Your task to perform on an android device: Add "logitech g pro" to the cart on ebay.com Image 0: 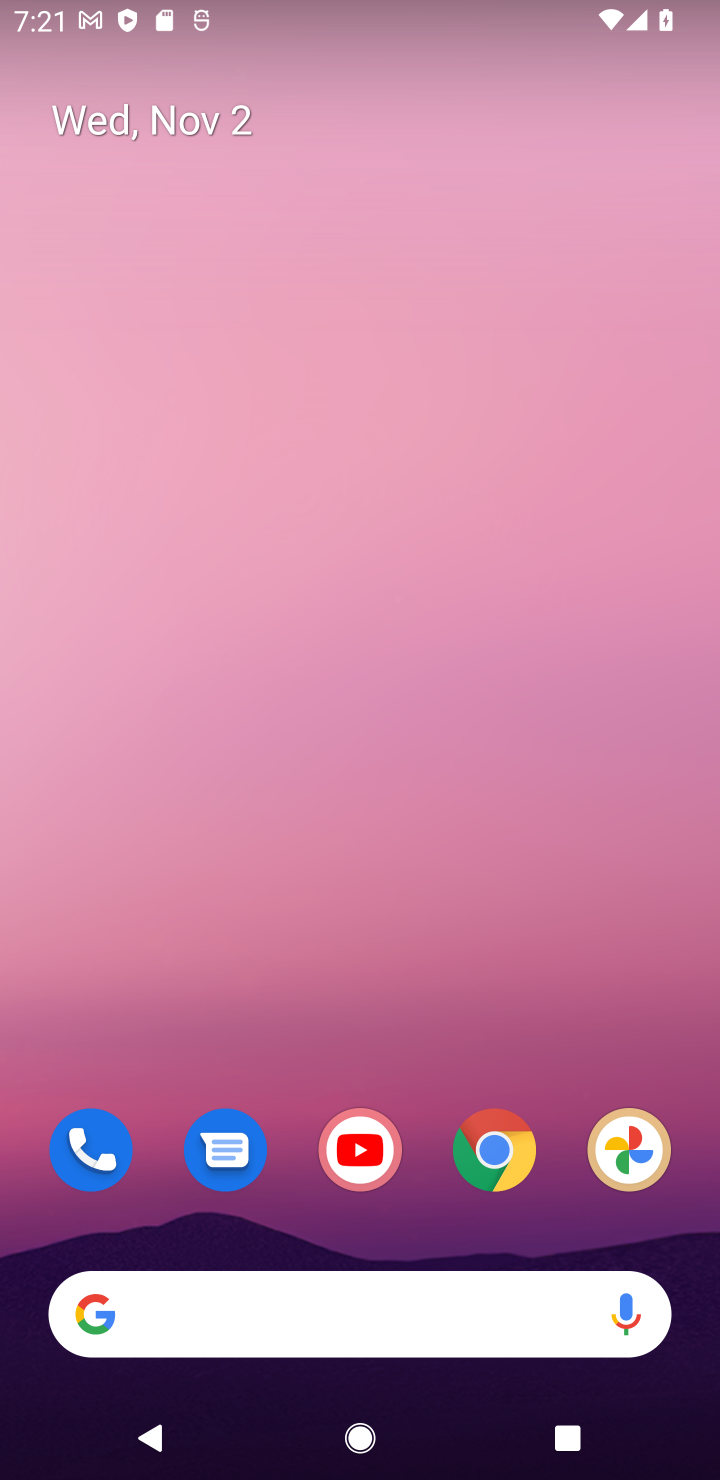
Step 0: click (496, 1150)
Your task to perform on an android device: Add "logitech g pro" to the cart on ebay.com Image 1: 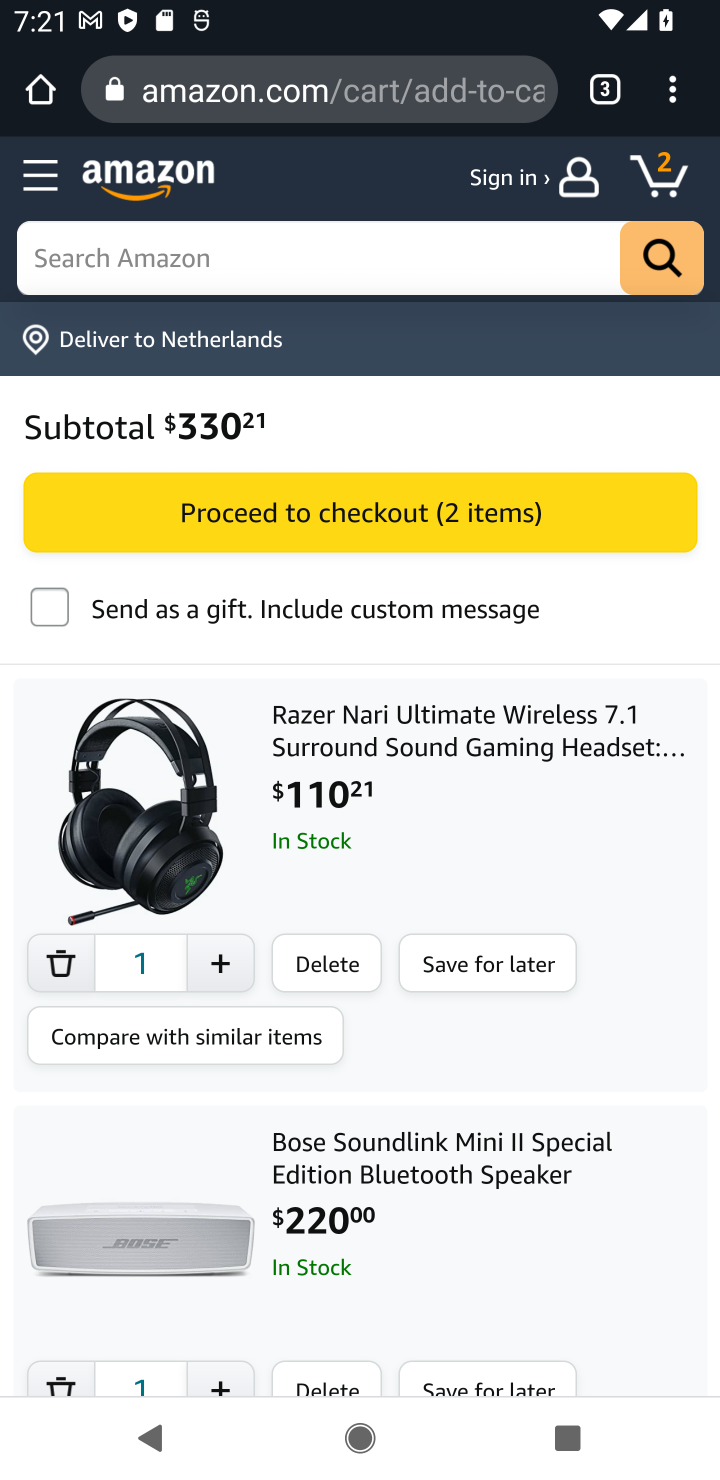
Step 1: click (314, 263)
Your task to perform on an android device: Add "logitech g pro" to the cart on ebay.com Image 2: 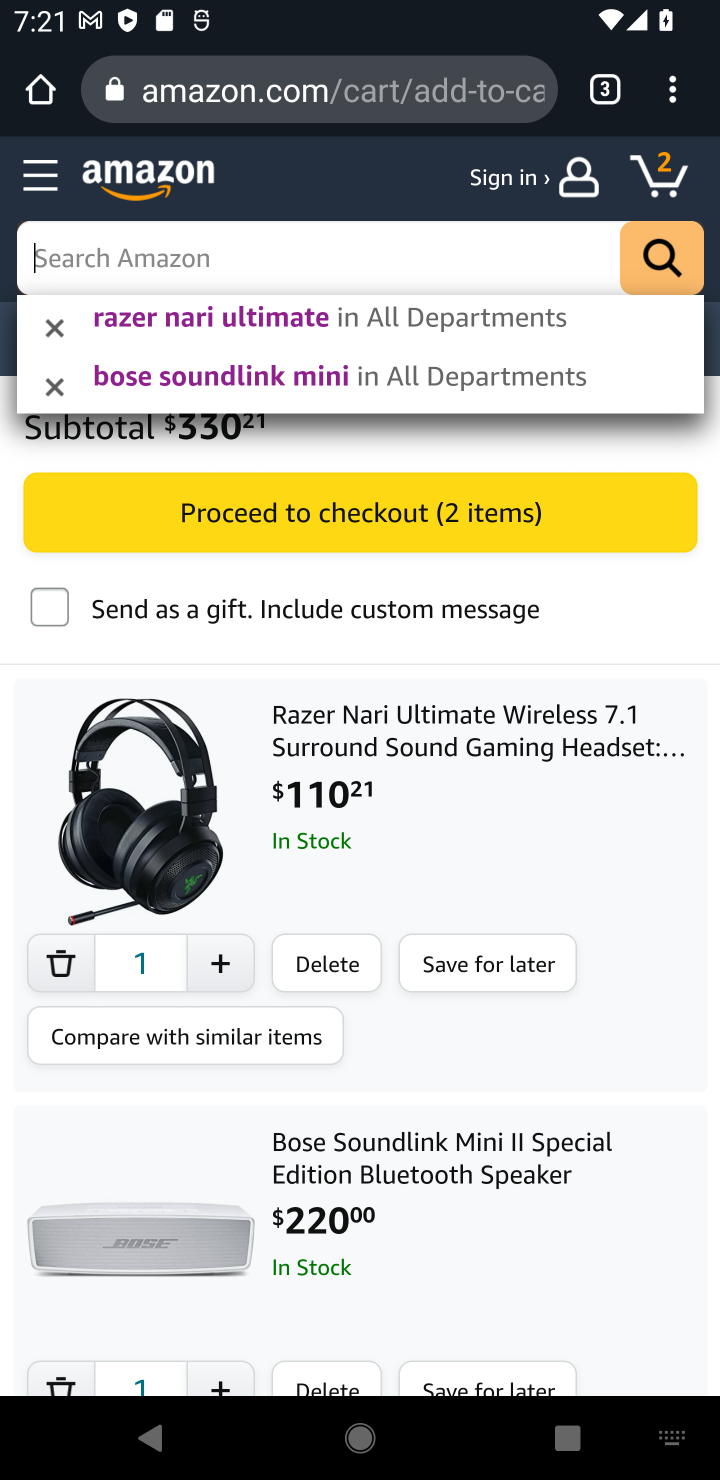
Step 2: click (608, 83)
Your task to perform on an android device: Add "logitech g pro" to the cart on ebay.com Image 3: 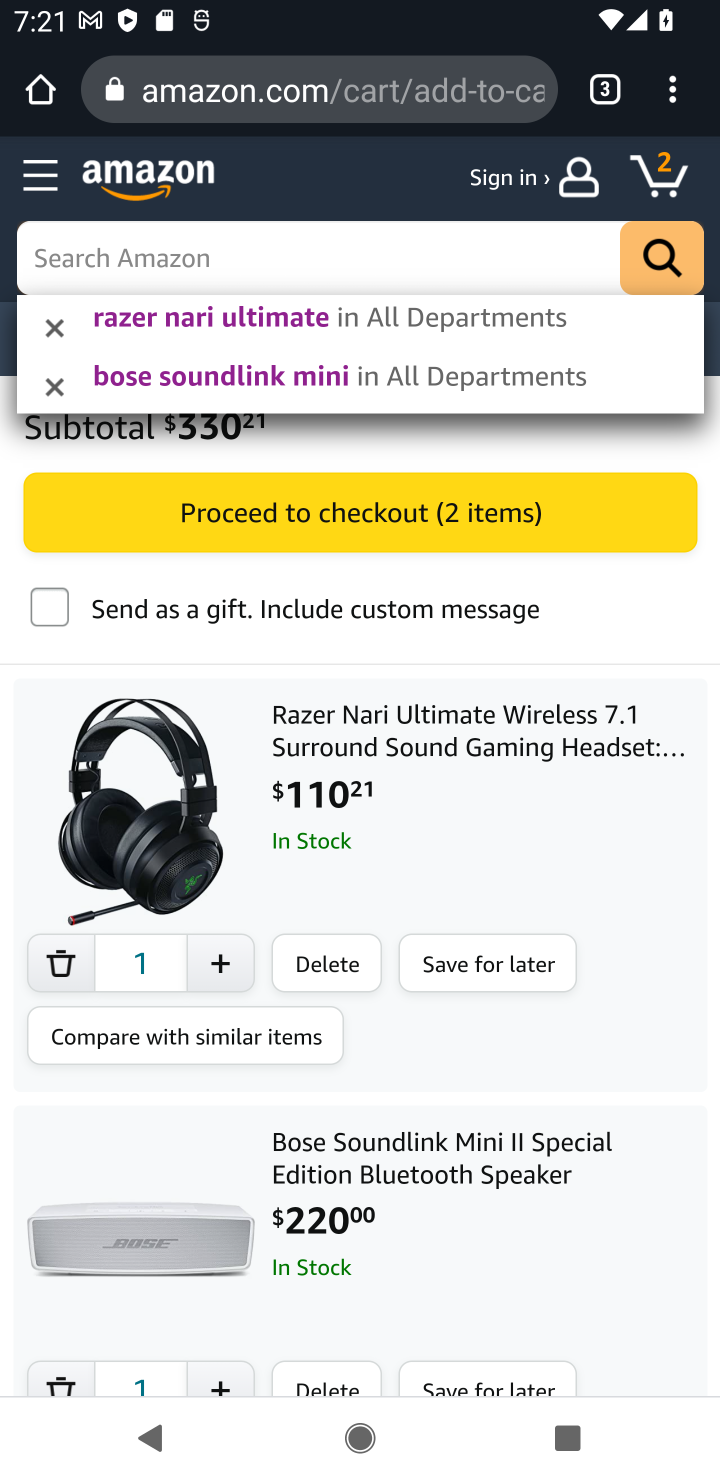
Step 3: click (617, 86)
Your task to perform on an android device: Add "logitech g pro" to the cart on ebay.com Image 4: 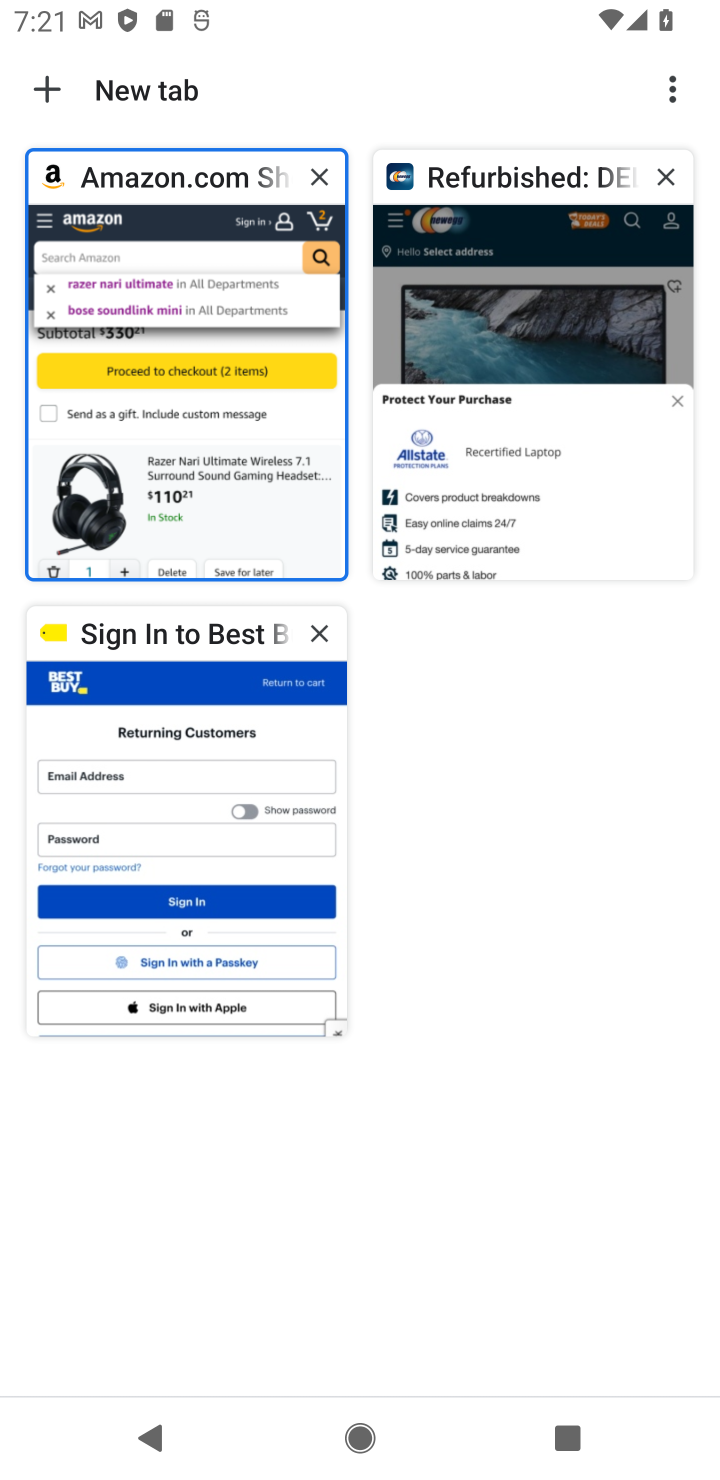
Step 4: click (41, 85)
Your task to perform on an android device: Add "logitech g pro" to the cart on ebay.com Image 5: 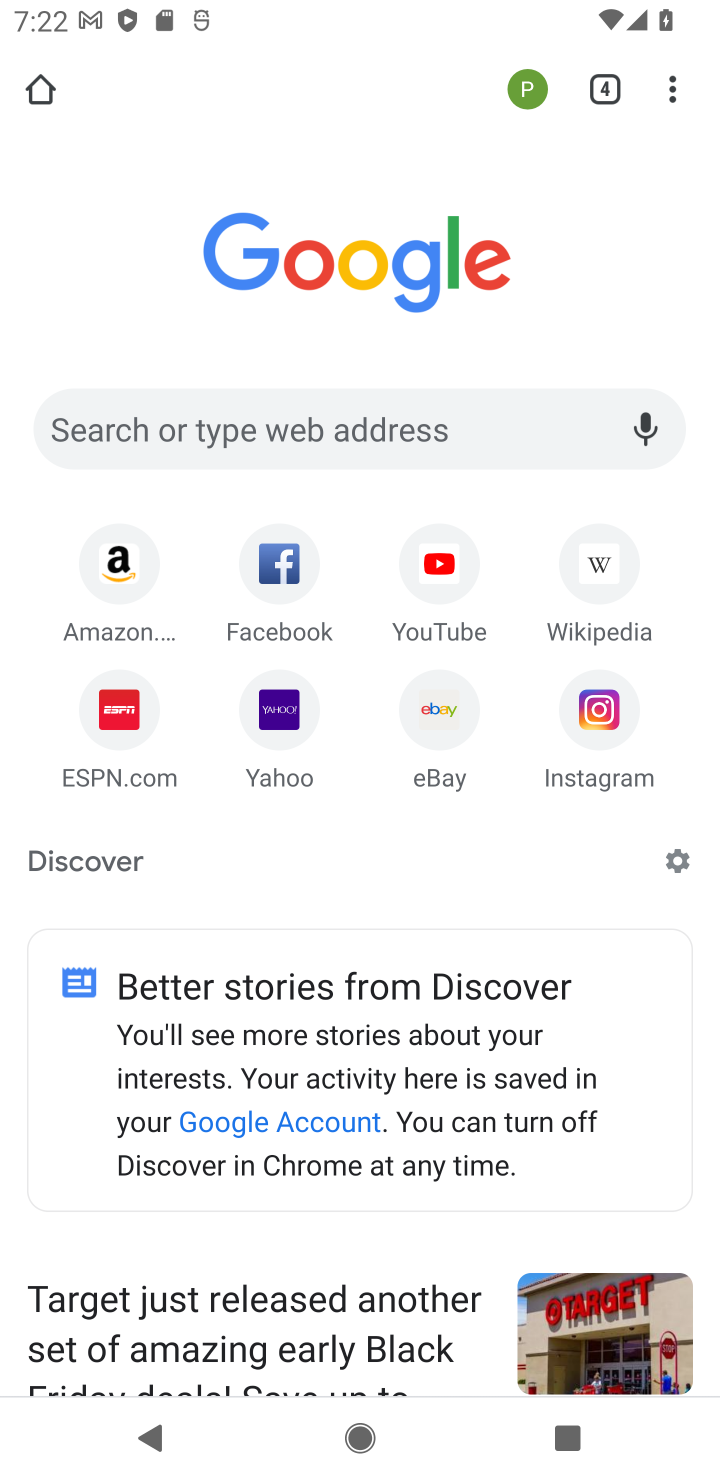
Step 5: click (381, 431)
Your task to perform on an android device: Add "logitech g pro" to the cart on ebay.com Image 6: 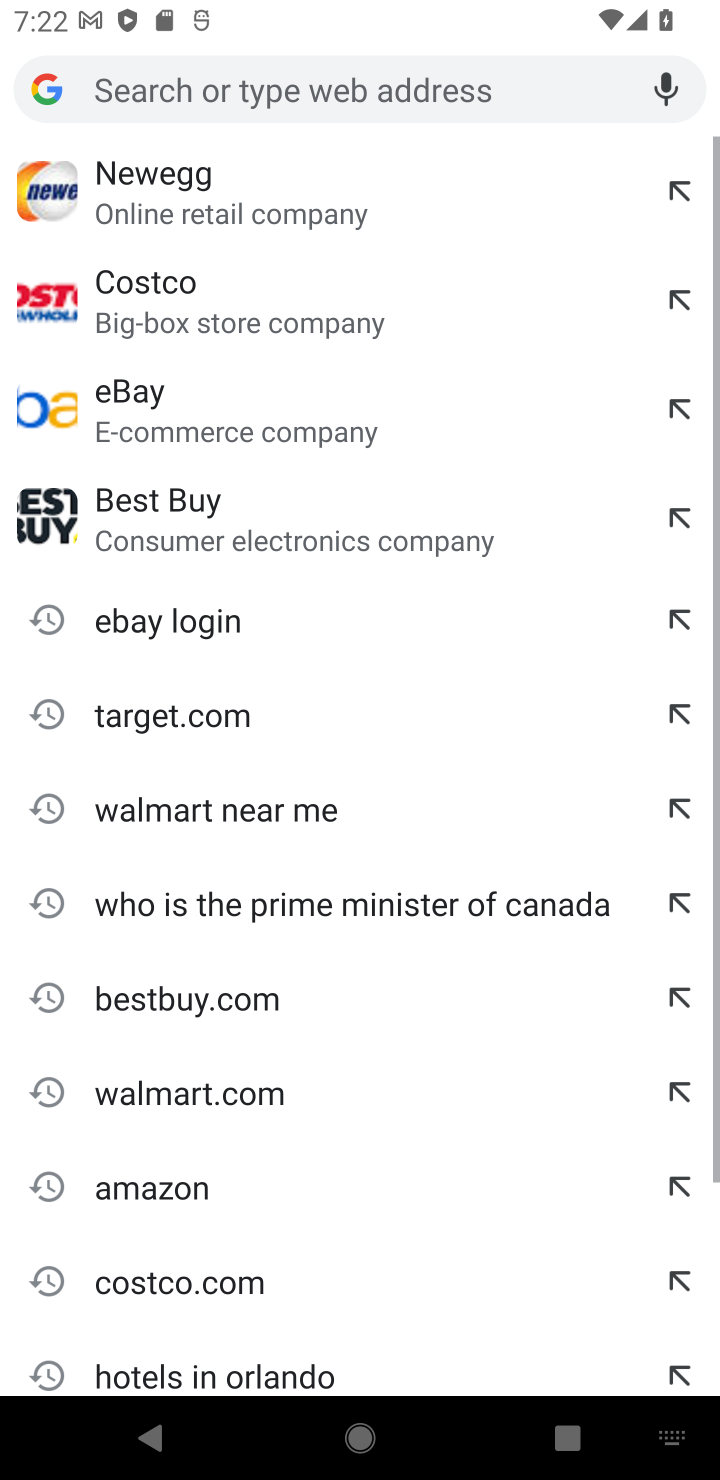
Step 6: type "ebay"
Your task to perform on an android device: Add "logitech g pro" to the cart on ebay.com Image 7: 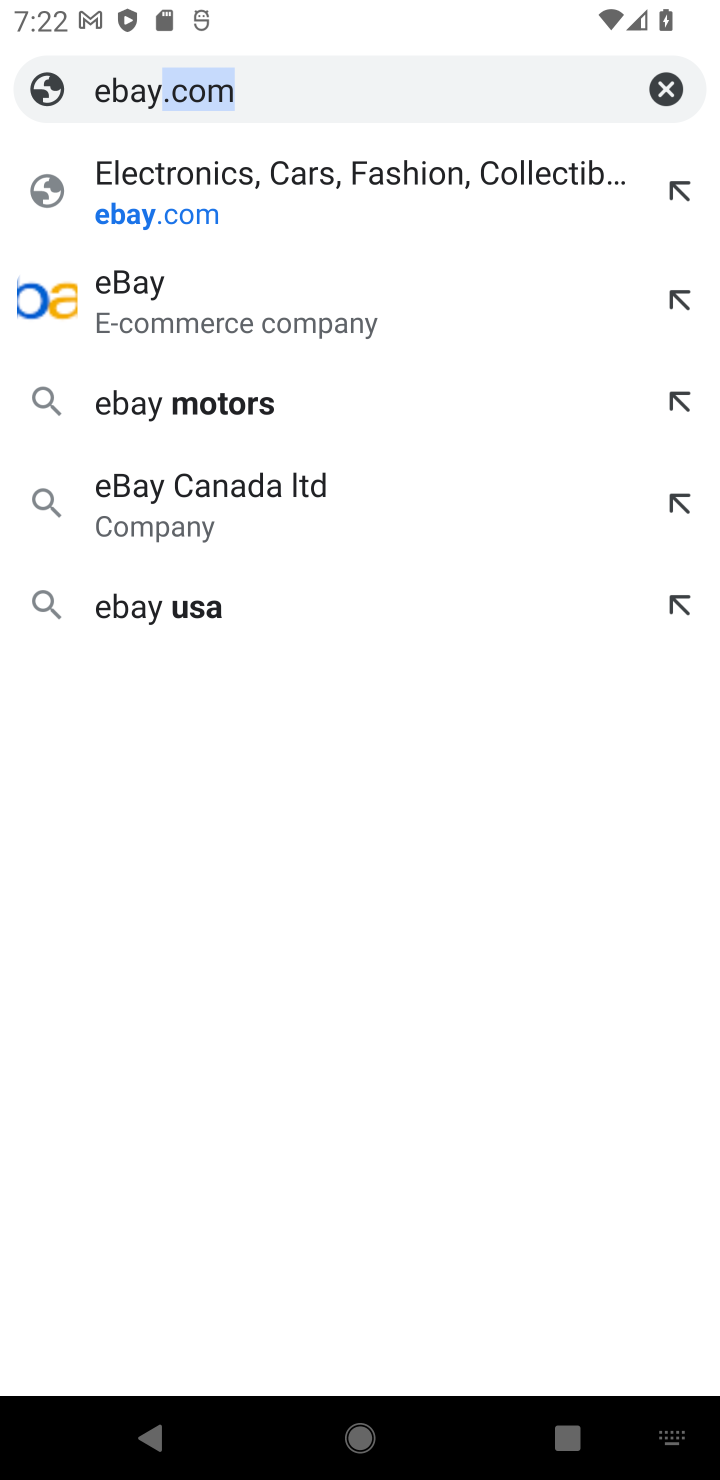
Step 7: click (240, 308)
Your task to perform on an android device: Add "logitech g pro" to the cart on ebay.com Image 8: 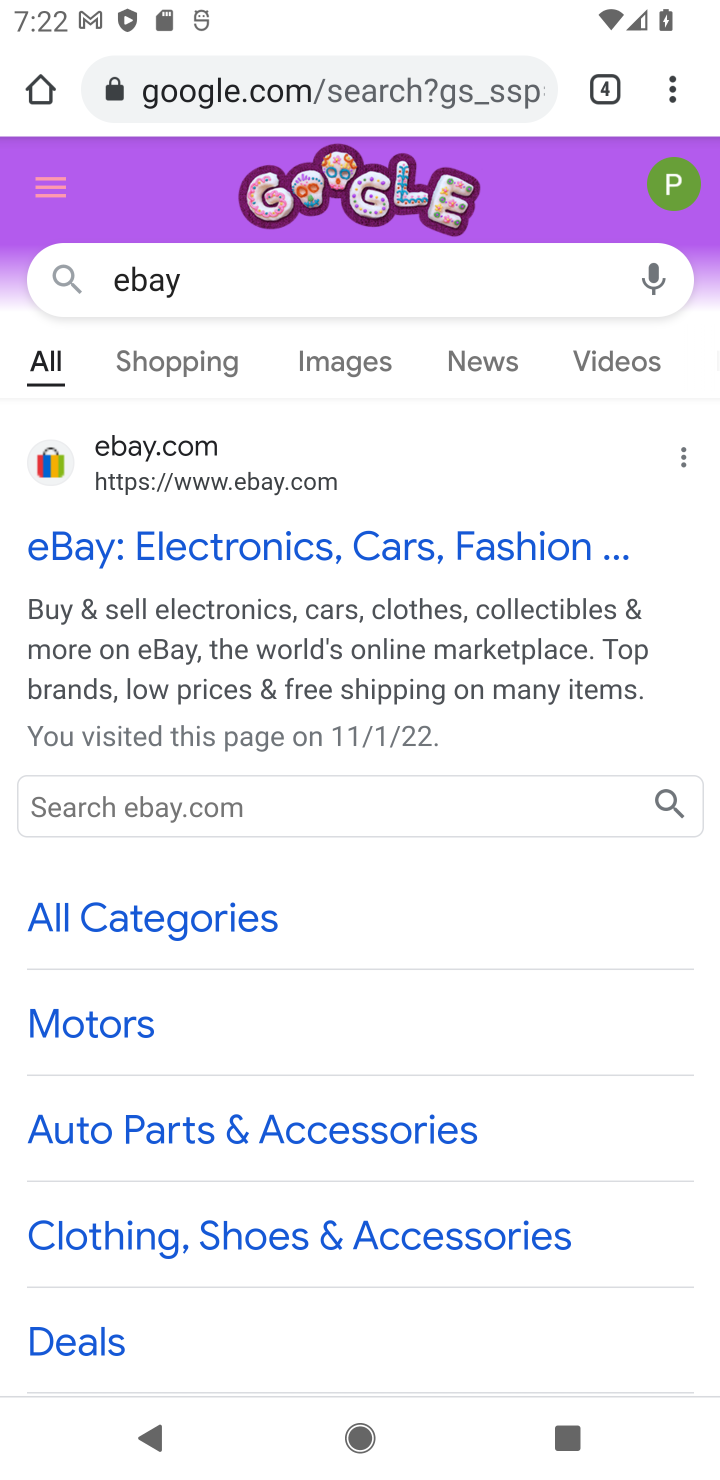
Step 8: click (284, 796)
Your task to perform on an android device: Add "logitech g pro" to the cart on ebay.com Image 9: 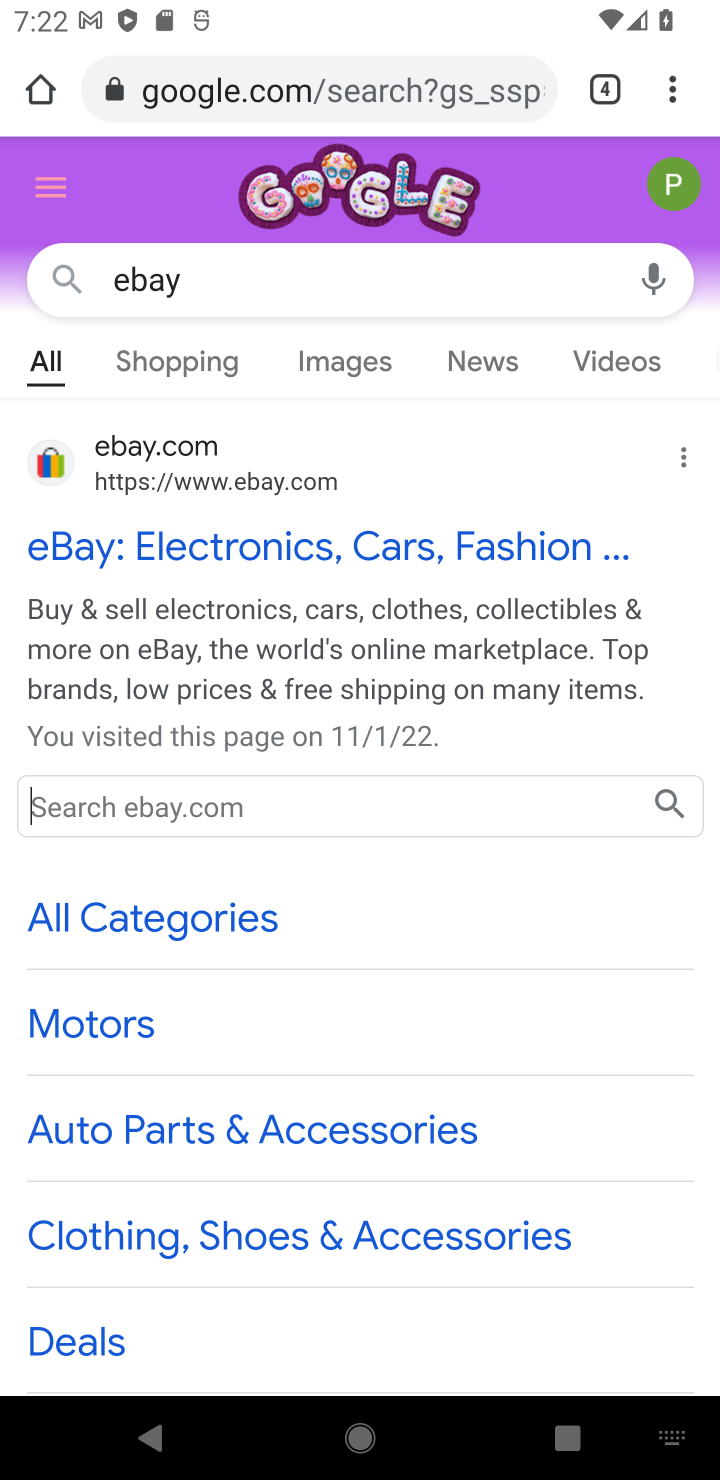
Step 9: type "logitech g pro"
Your task to perform on an android device: Add "logitech g pro" to the cart on ebay.com Image 10: 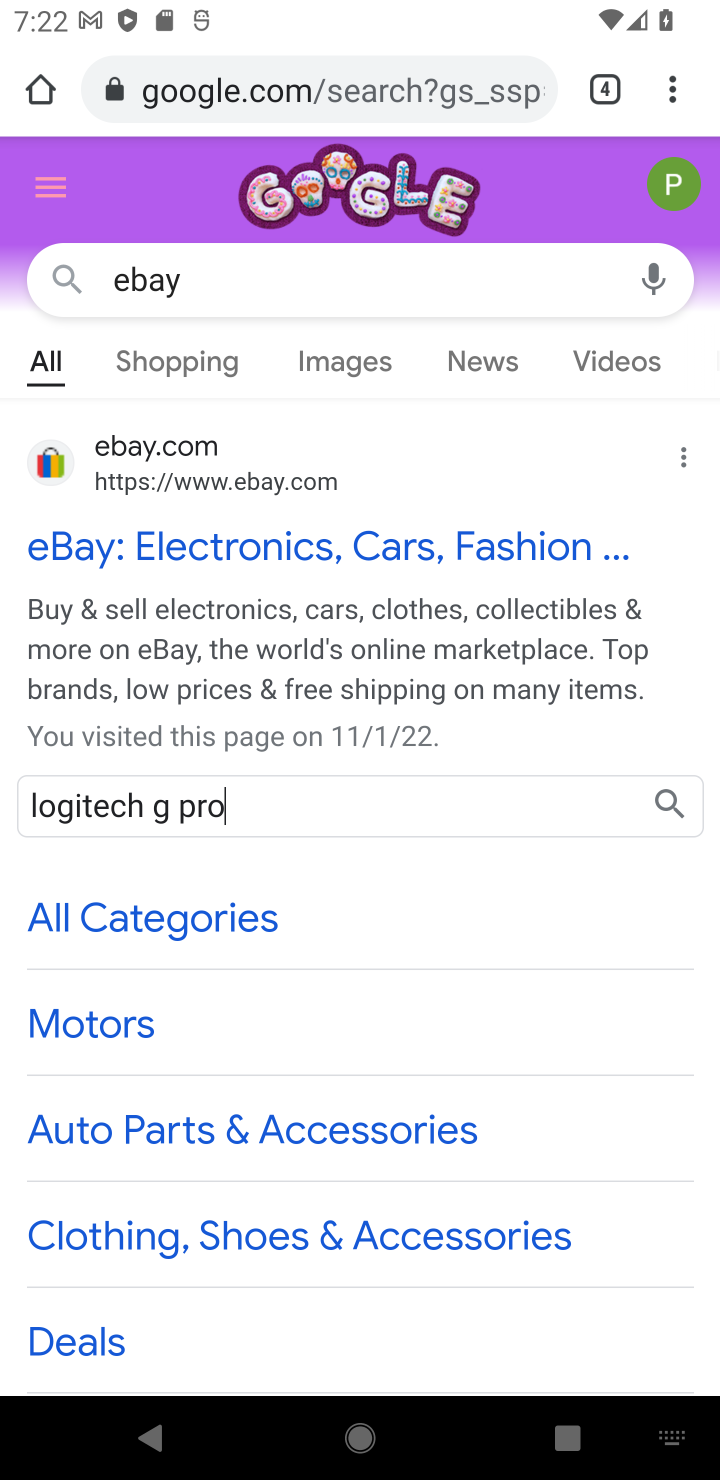
Step 10: click (661, 795)
Your task to perform on an android device: Add "logitech g pro" to the cart on ebay.com Image 11: 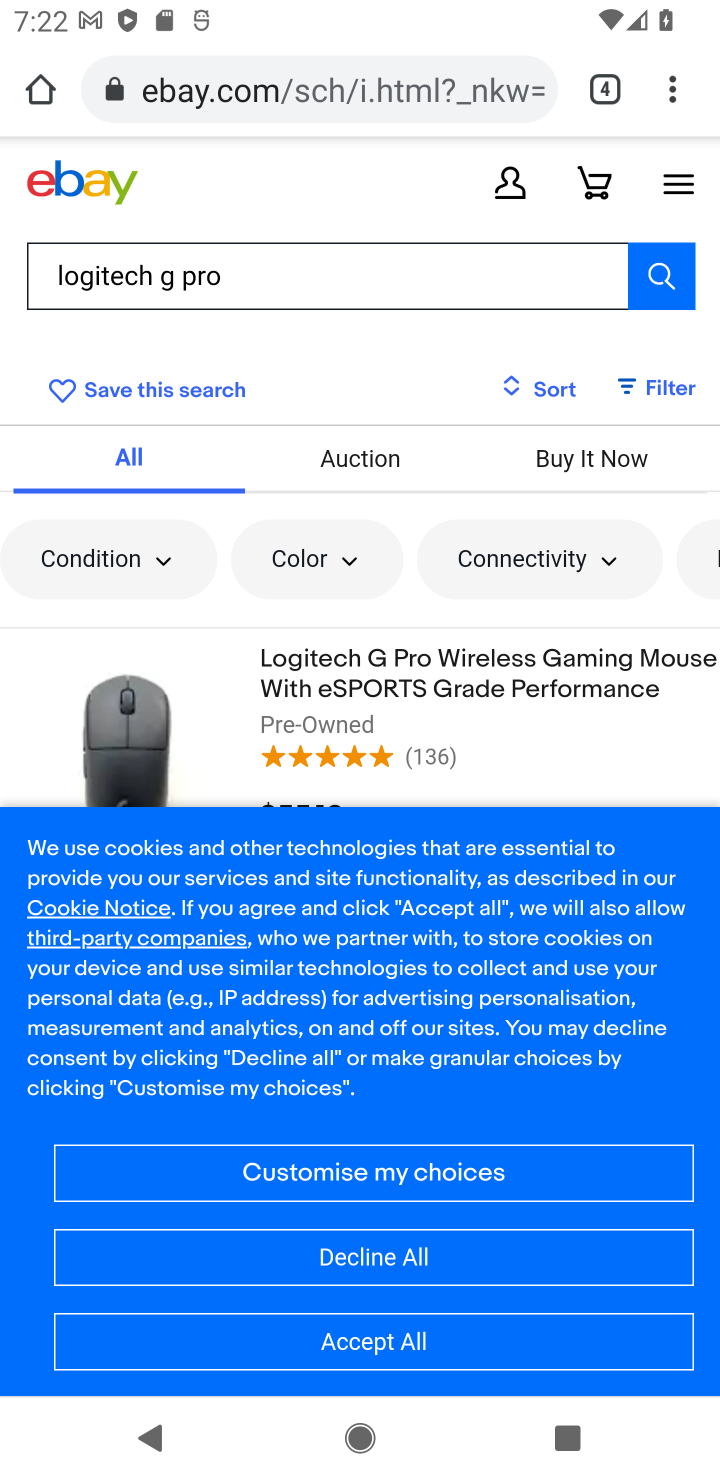
Step 11: click (438, 1272)
Your task to perform on an android device: Add "logitech g pro" to the cart on ebay.com Image 12: 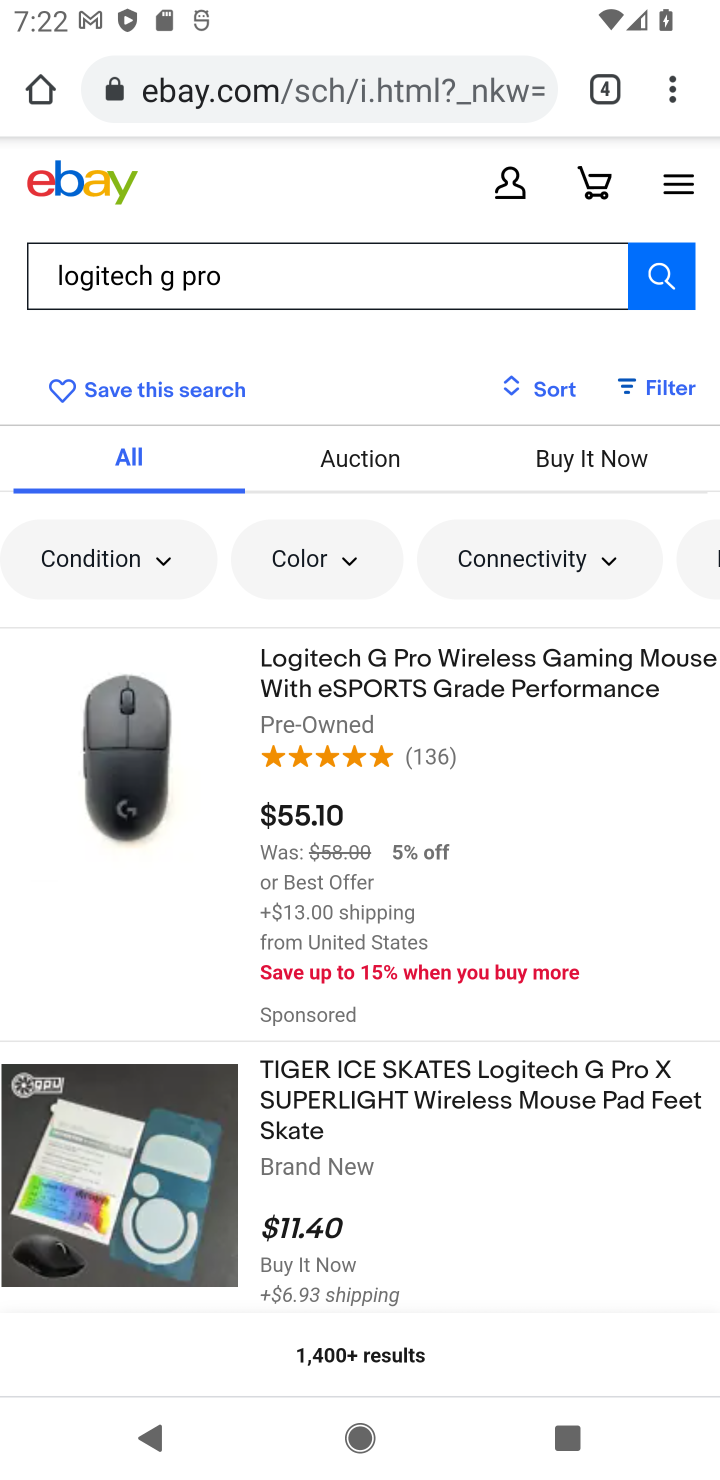
Step 12: click (508, 1089)
Your task to perform on an android device: Add "logitech g pro" to the cart on ebay.com Image 13: 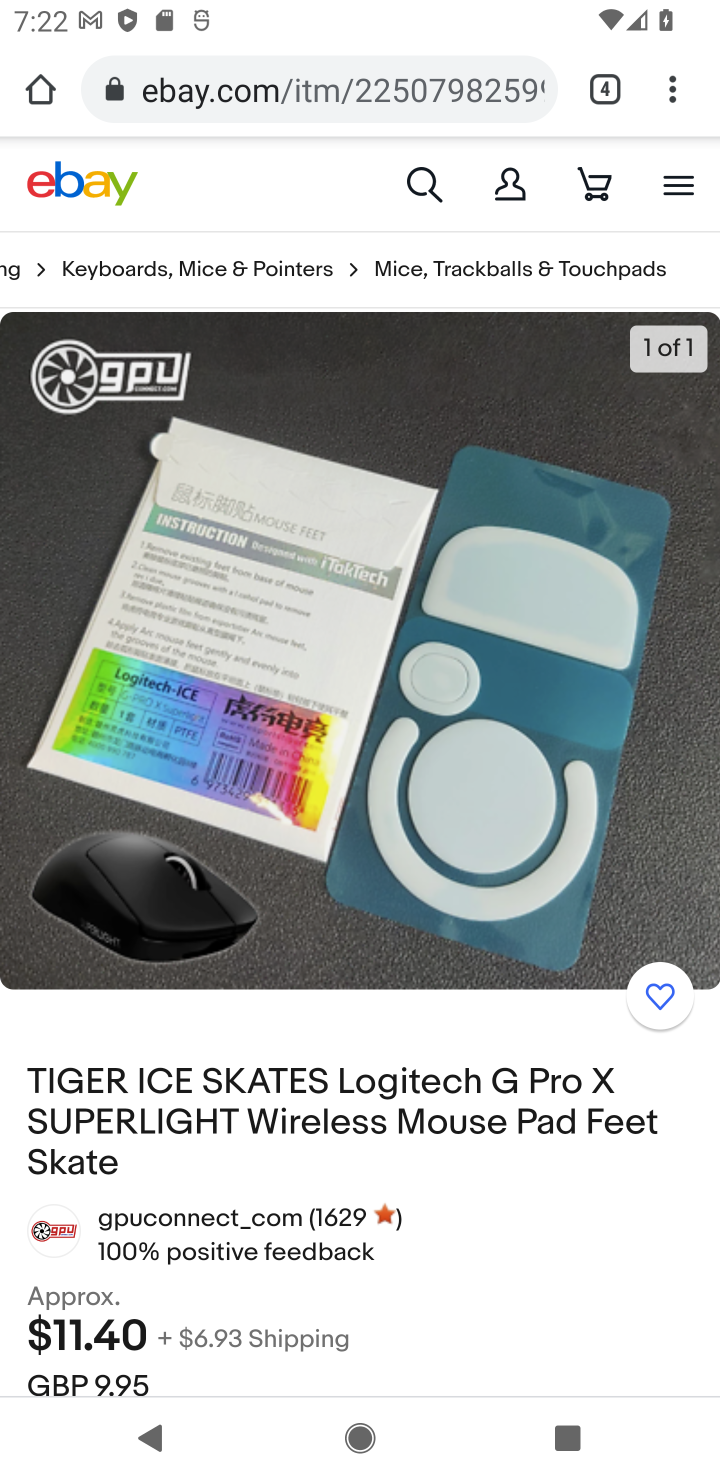
Step 13: drag from (508, 1210) to (534, 743)
Your task to perform on an android device: Add "logitech g pro" to the cart on ebay.com Image 14: 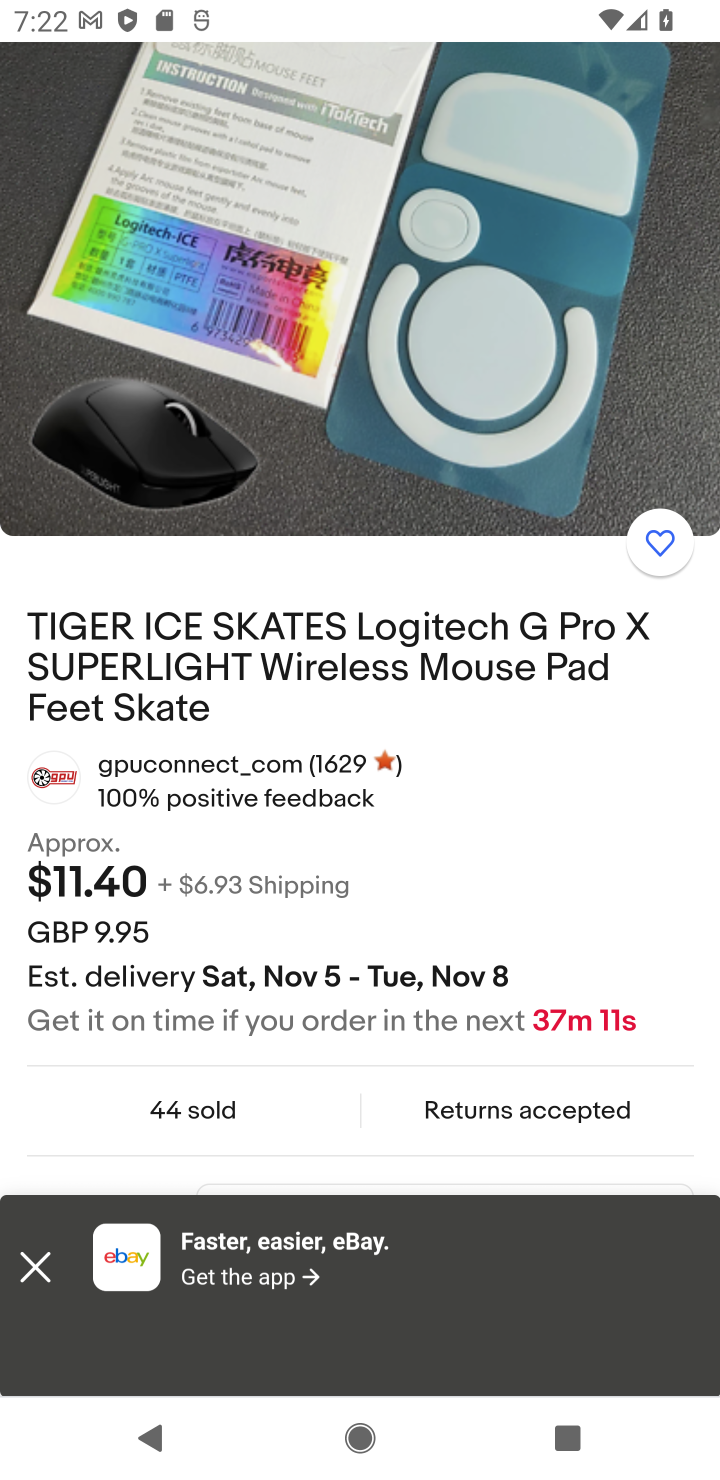
Step 14: drag from (421, 1088) to (543, 282)
Your task to perform on an android device: Add "logitech g pro" to the cart on ebay.com Image 15: 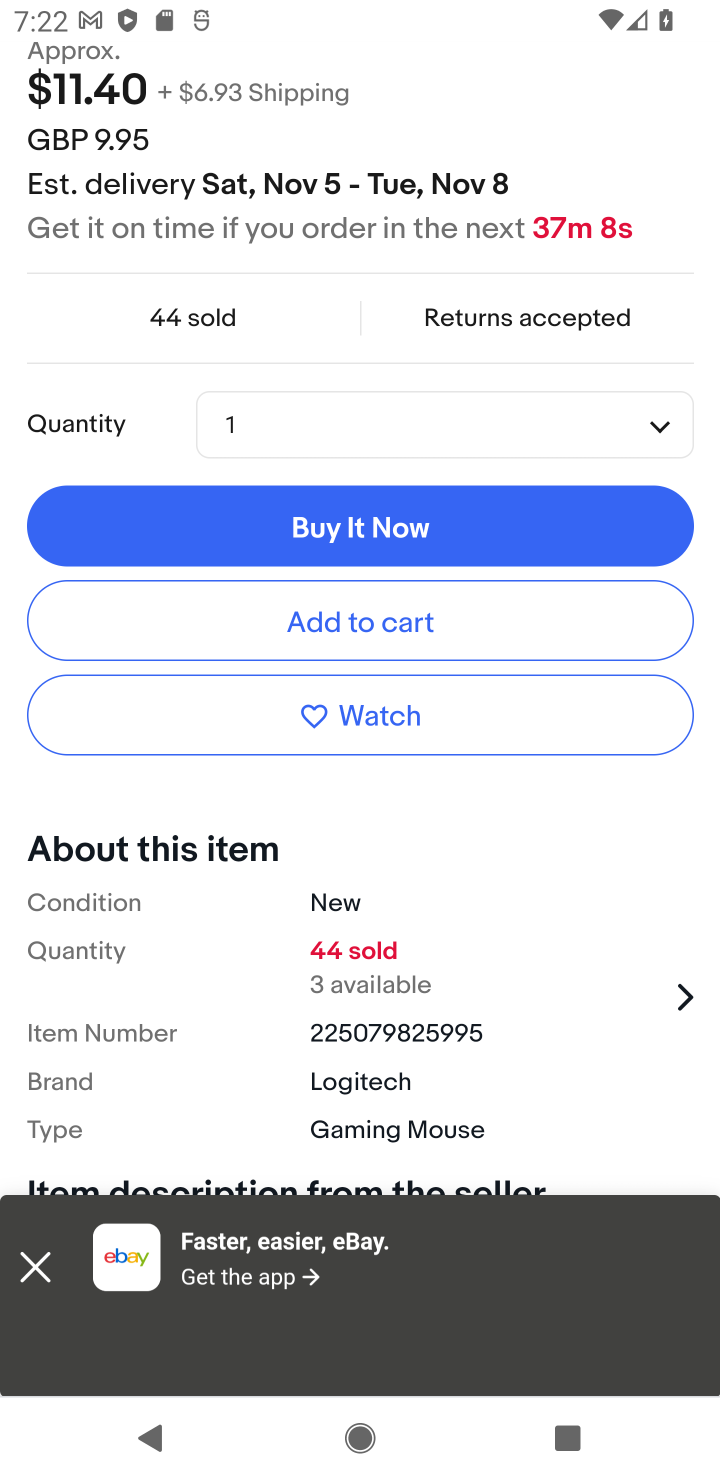
Step 15: click (394, 624)
Your task to perform on an android device: Add "logitech g pro" to the cart on ebay.com Image 16: 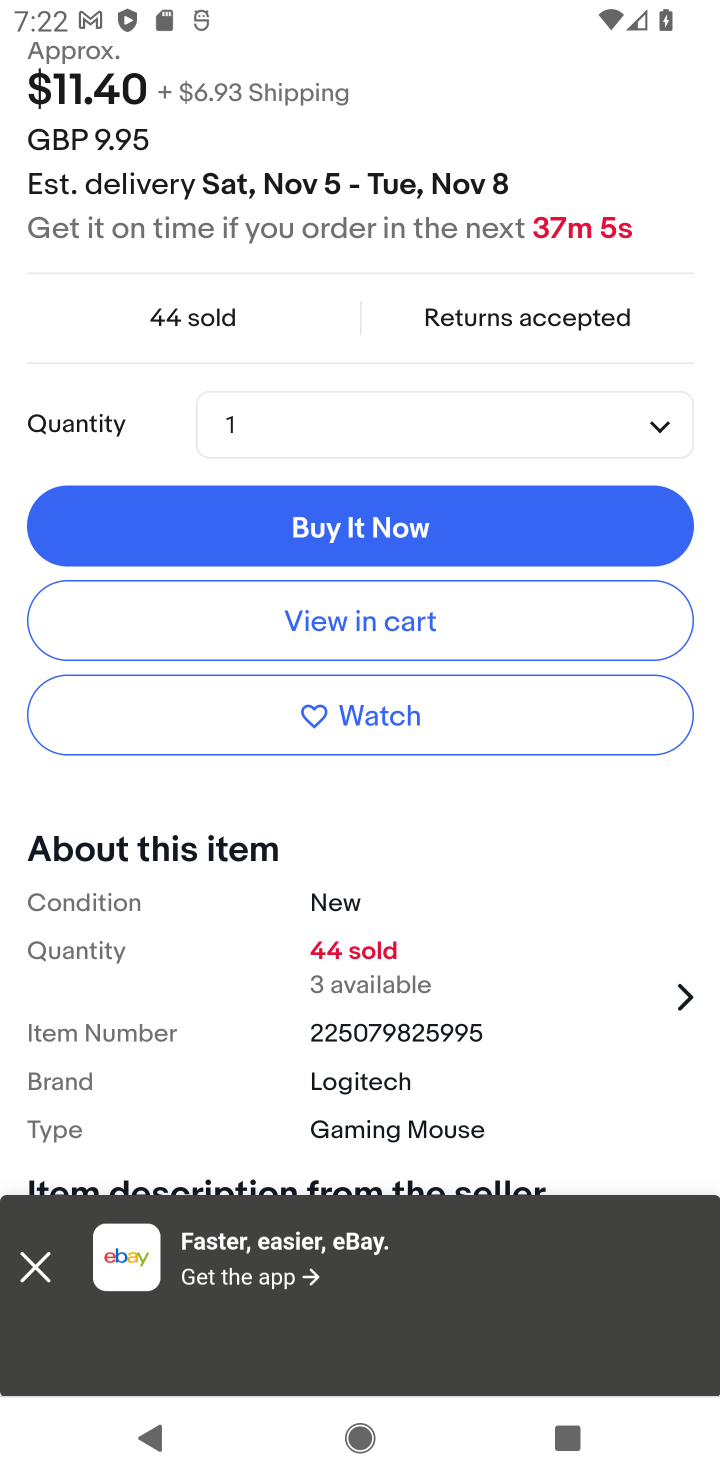
Step 16: task complete